Your task to perform on an android device: Set the phone to "Do not disturb". Image 0: 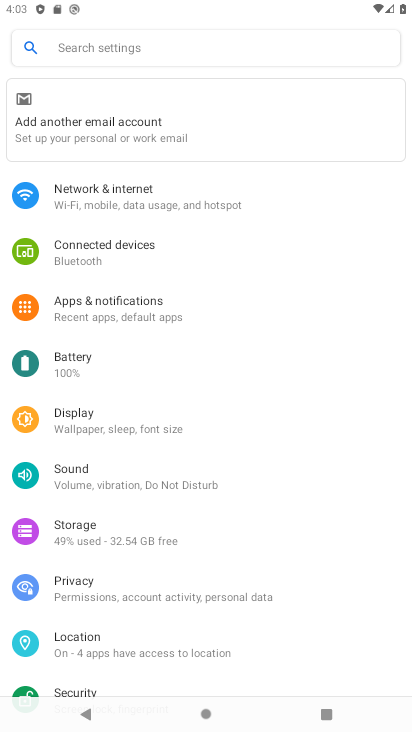
Step 0: press home button
Your task to perform on an android device: Set the phone to "Do not disturb". Image 1: 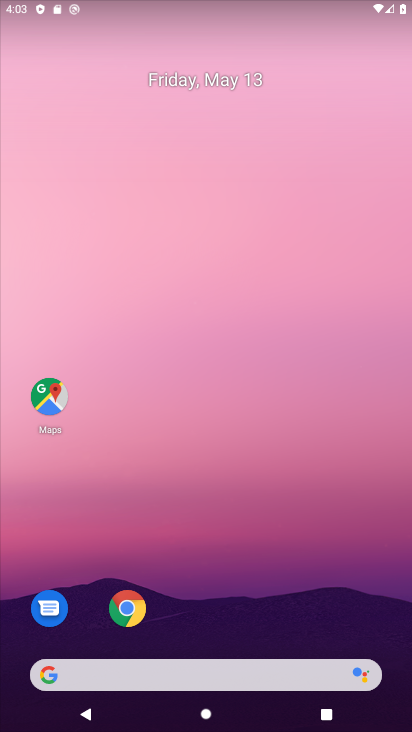
Step 1: drag from (261, 659) to (251, 147)
Your task to perform on an android device: Set the phone to "Do not disturb". Image 2: 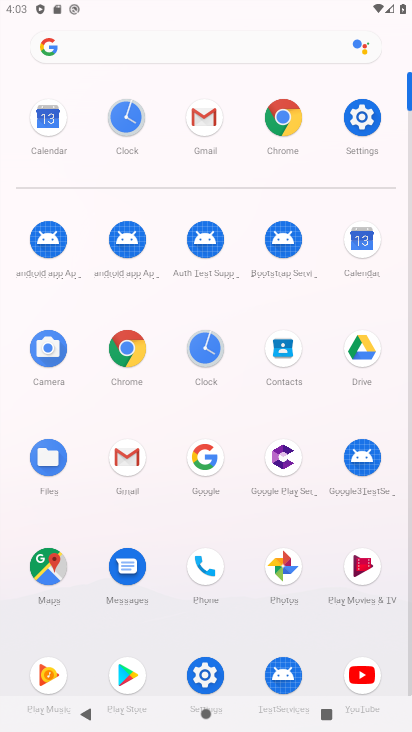
Step 2: click (357, 118)
Your task to perform on an android device: Set the phone to "Do not disturb". Image 3: 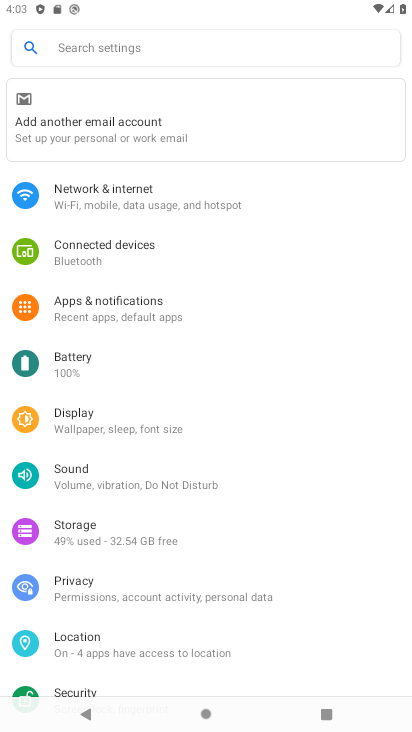
Step 3: click (110, 477)
Your task to perform on an android device: Set the phone to "Do not disturb". Image 4: 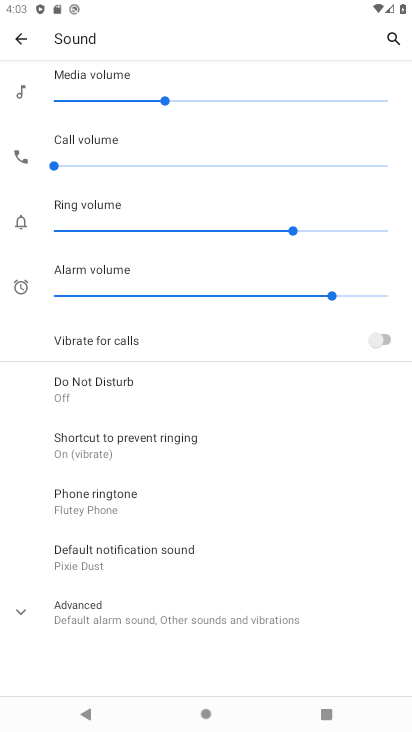
Step 4: click (141, 395)
Your task to perform on an android device: Set the phone to "Do not disturb". Image 5: 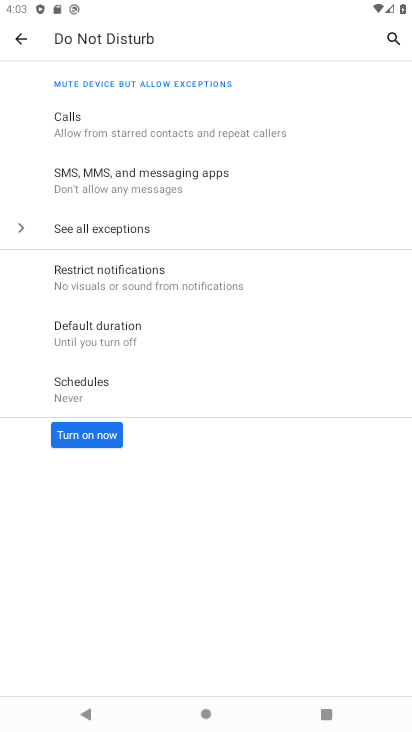
Step 5: click (108, 437)
Your task to perform on an android device: Set the phone to "Do not disturb". Image 6: 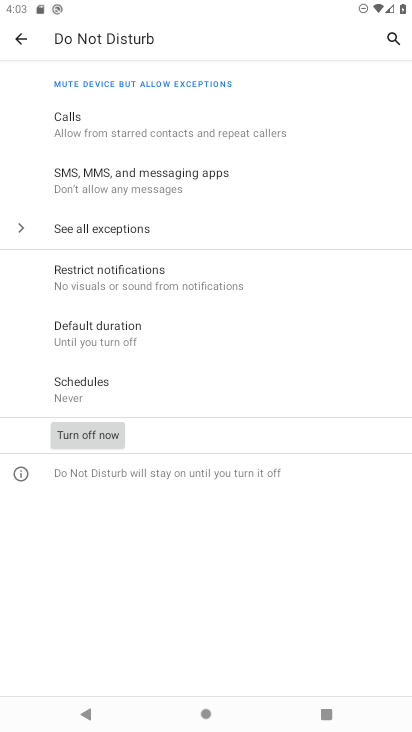
Step 6: task complete